Your task to perform on an android device: What's the weather going to be this weekend? Image 0: 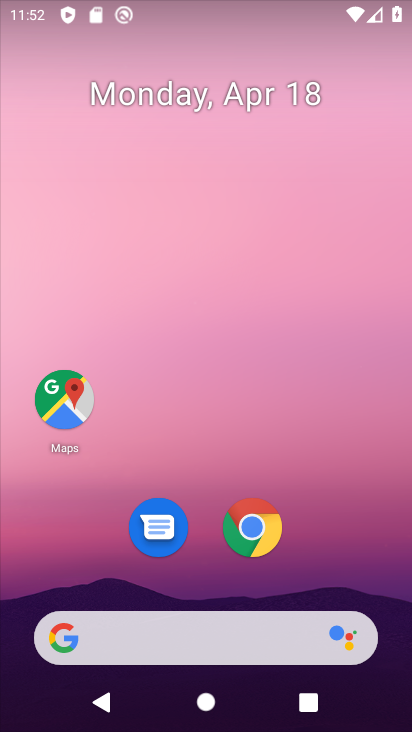
Step 0: drag from (314, 546) to (326, 16)
Your task to perform on an android device: What's the weather going to be this weekend? Image 1: 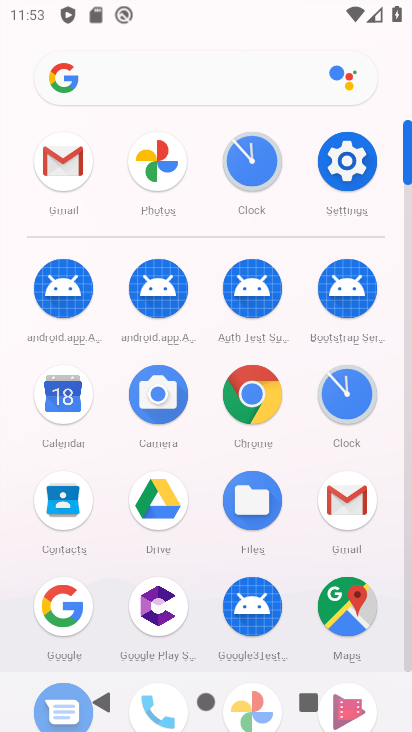
Step 1: click (187, 85)
Your task to perform on an android device: What's the weather going to be this weekend? Image 2: 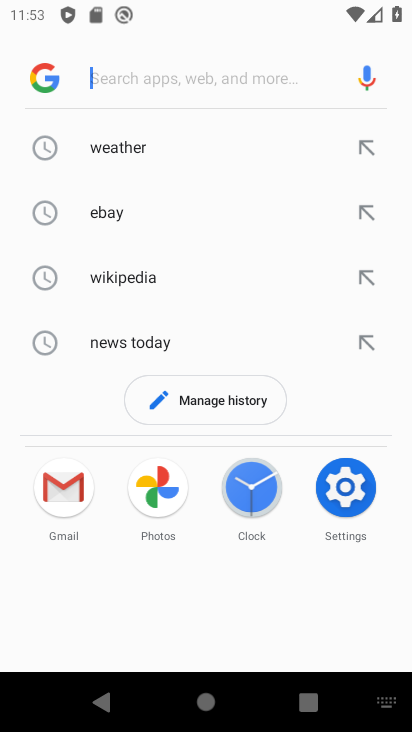
Step 2: type "what's the weather going to be this weekend"
Your task to perform on an android device: What's the weather going to be this weekend? Image 3: 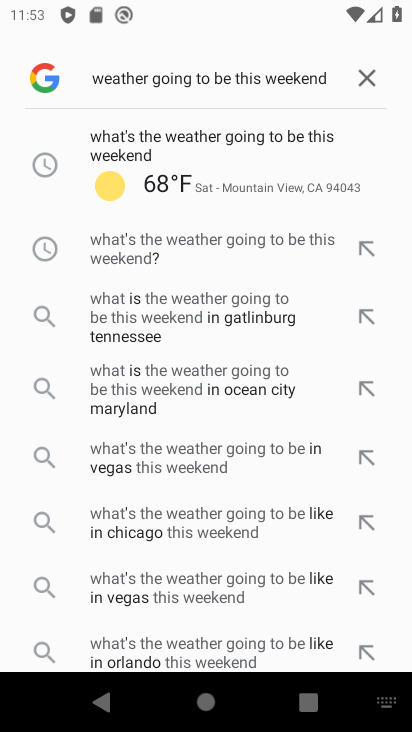
Step 3: click (219, 138)
Your task to perform on an android device: What's the weather going to be this weekend? Image 4: 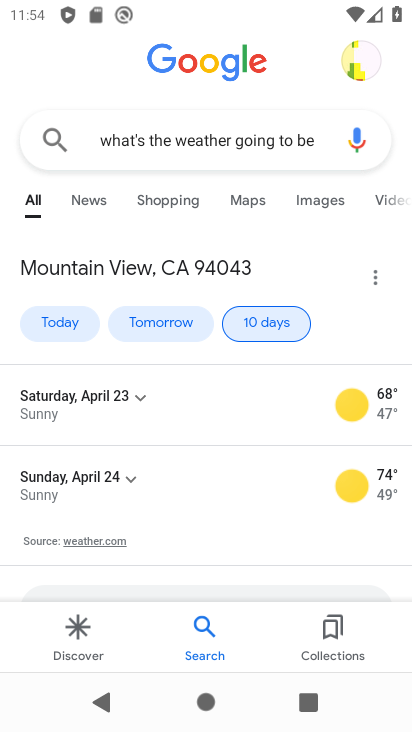
Step 4: task complete